Your task to perform on an android device: turn pop-ups on in chrome Image 0: 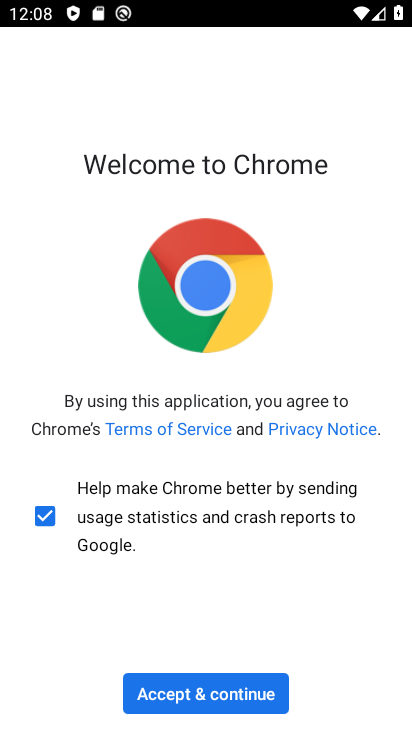
Step 0: press home button
Your task to perform on an android device: turn pop-ups on in chrome Image 1: 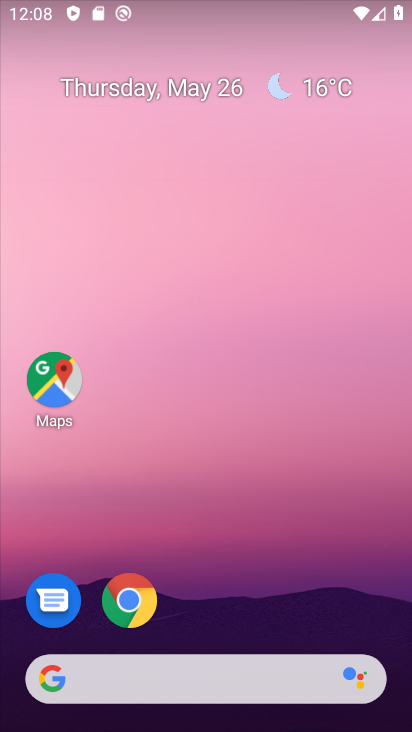
Step 1: click (143, 616)
Your task to perform on an android device: turn pop-ups on in chrome Image 2: 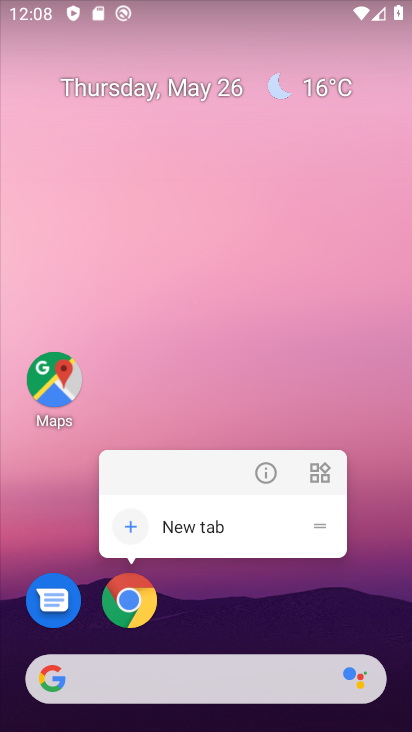
Step 2: click (139, 604)
Your task to perform on an android device: turn pop-ups on in chrome Image 3: 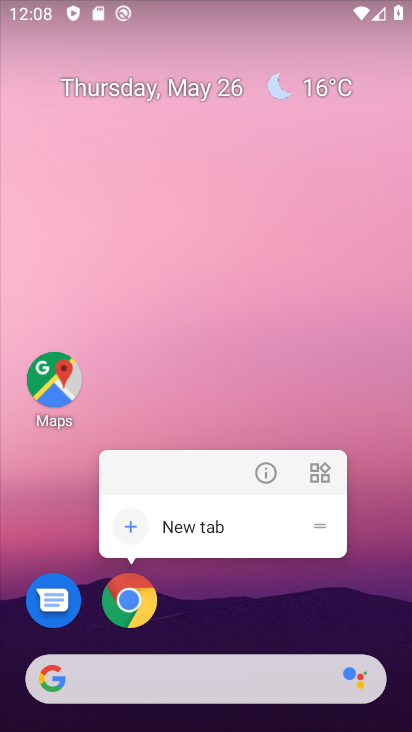
Step 3: click (139, 597)
Your task to perform on an android device: turn pop-ups on in chrome Image 4: 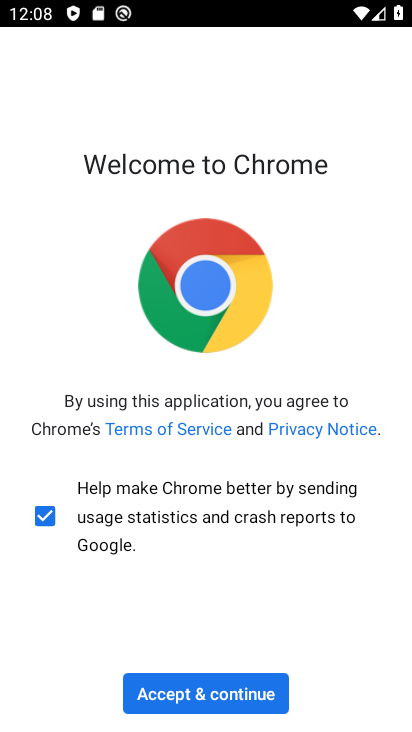
Step 4: click (227, 667)
Your task to perform on an android device: turn pop-ups on in chrome Image 5: 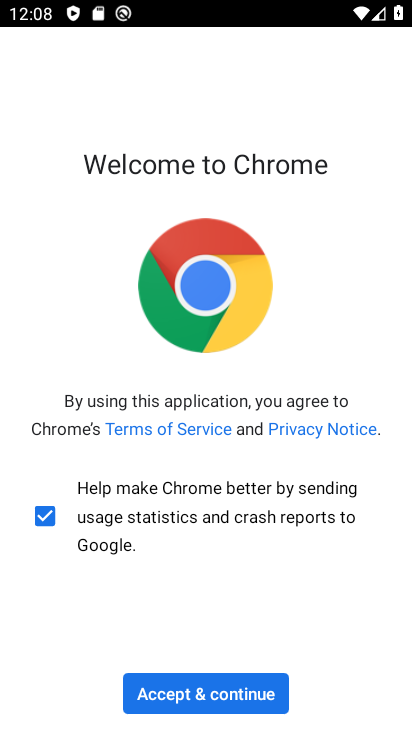
Step 5: click (241, 711)
Your task to perform on an android device: turn pop-ups on in chrome Image 6: 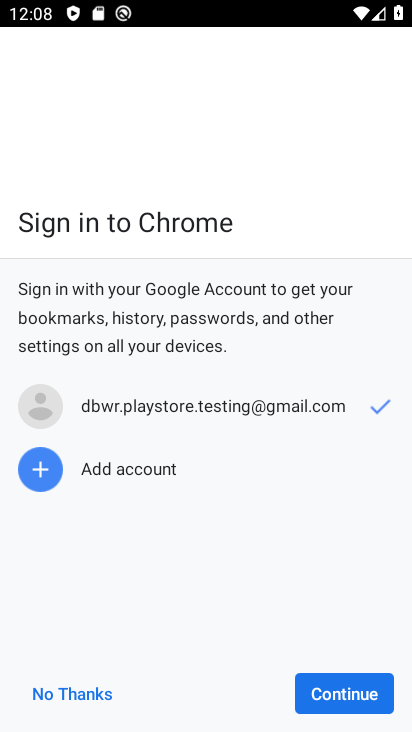
Step 6: click (344, 705)
Your task to perform on an android device: turn pop-ups on in chrome Image 7: 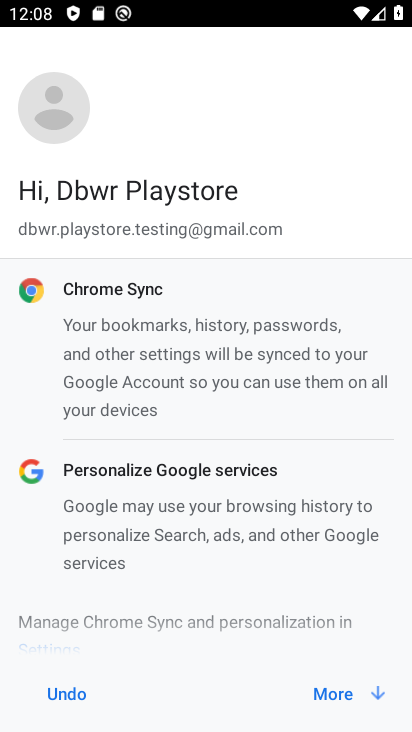
Step 7: click (342, 697)
Your task to perform on an android device: turn pop-ups on in chrome Image 8: 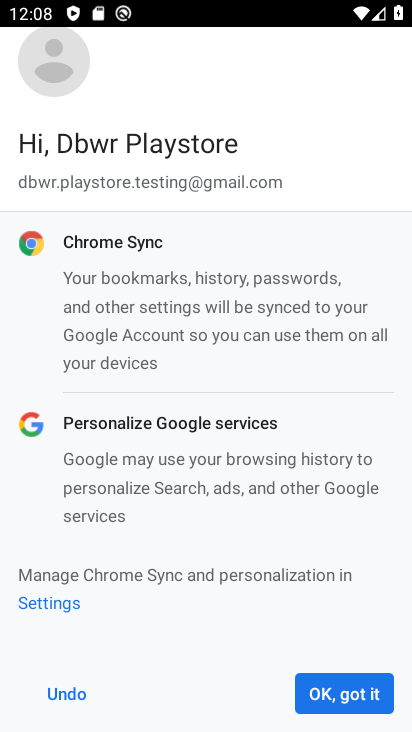
Step 8: click (333, 698)
Your task to perform on an android device: turn pop-ups on in chrome Image 9: 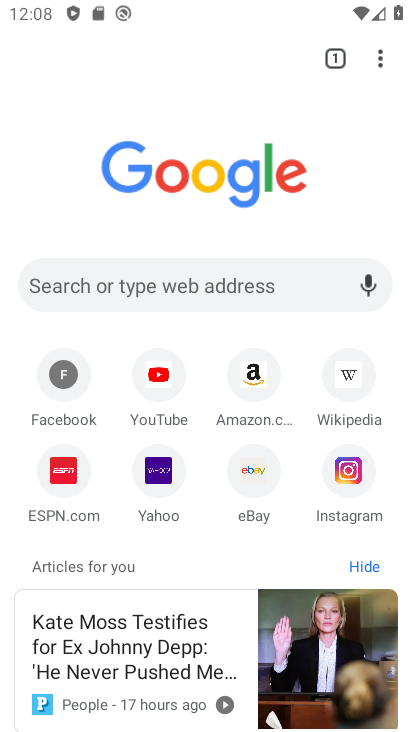
Step 9: drag from (389, 71) to (273, 511)
Your task to perform on an android device: turn pop-ups on in chrome Image 10: 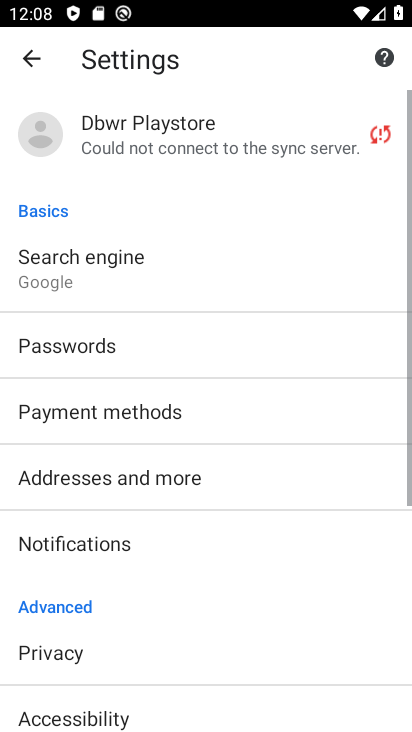
Step 10: drag from (156, 644) to (317, 328)
Your task to perform on an android device: turn pop-ups on in chrome Image 11: 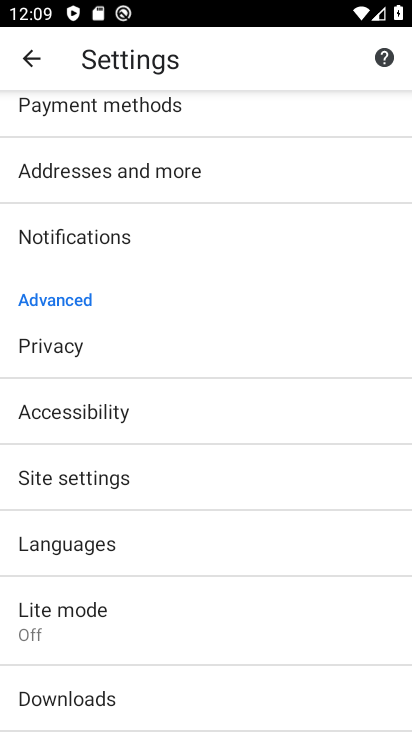
Step 11: drag from (156, 602) to (265, 363)
Your task to perform on an android device: turn pop-ups on in chrome Image 12: 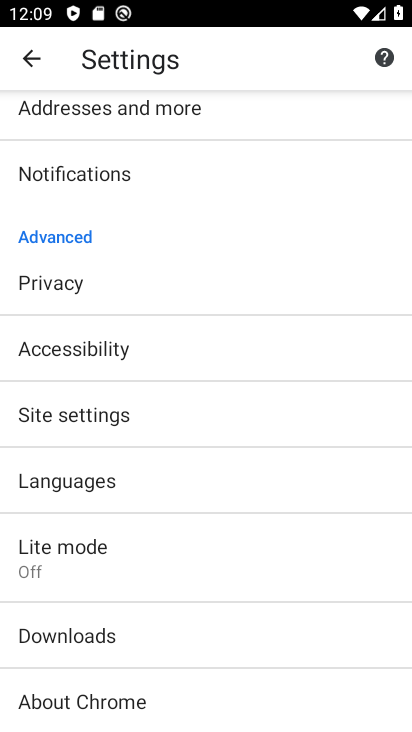
Step 12: click (152, 418)
Your task to perform on an android device: turn pop-ups on in chrome Image 13: 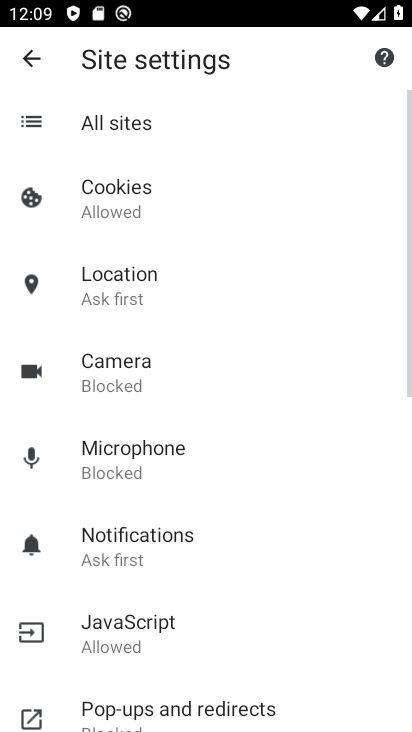
Step 13: drag from (142, 679) to (274, 439)
Your task to perform on an android device: turn pop-ups on in chrome Image 14: 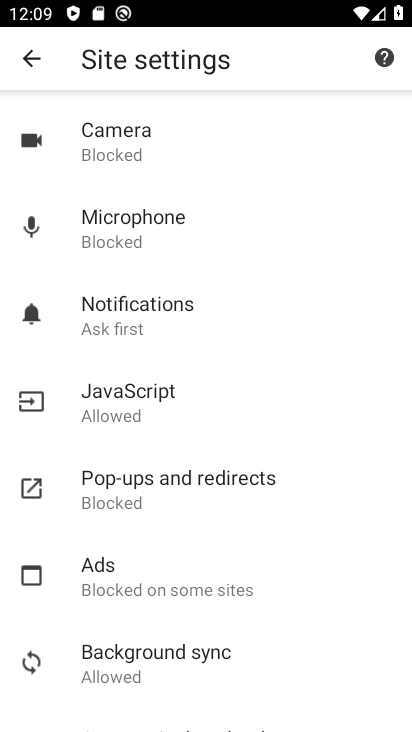
Step 14: click (220, 500)
Your task to perform on an android device: turn pop-ups on in chrome Image 15: 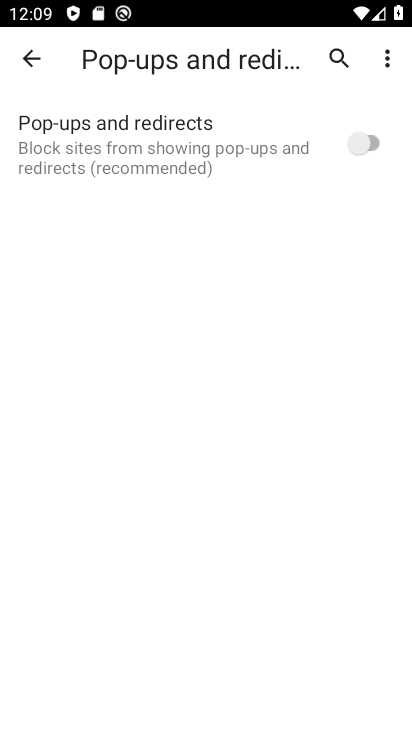
Step 15: click (385, 134)
Your task to perform on an android device: turn pop-ups on in chrome Image 16: 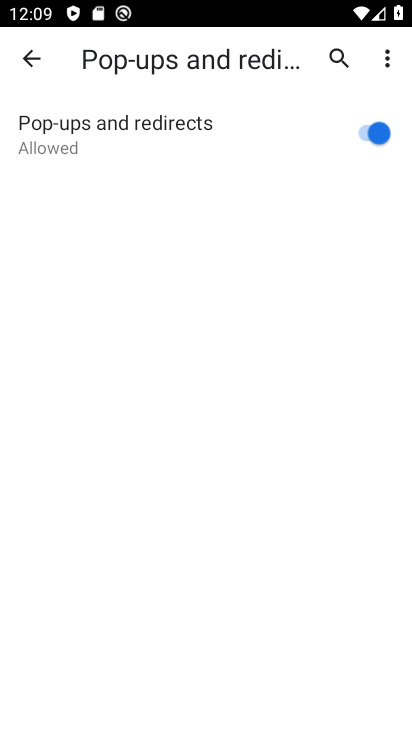
Step 16: task complete